Your task to perform on an android device: change timer sound Image 0: 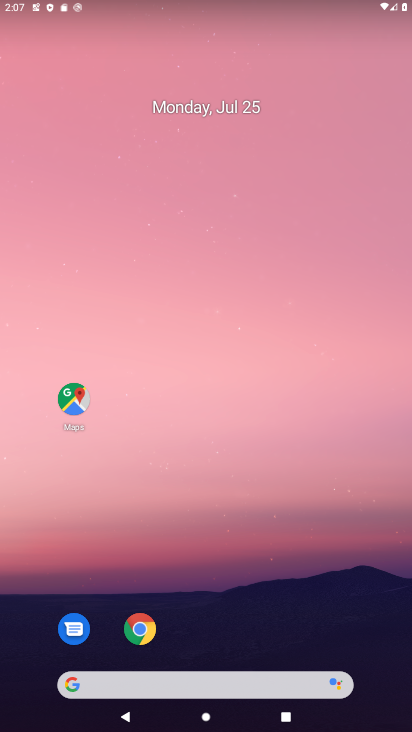
Step 0: drag from (217, 652) to (186, 61)
Your task to perform on an android device: change timer sound Image 1: 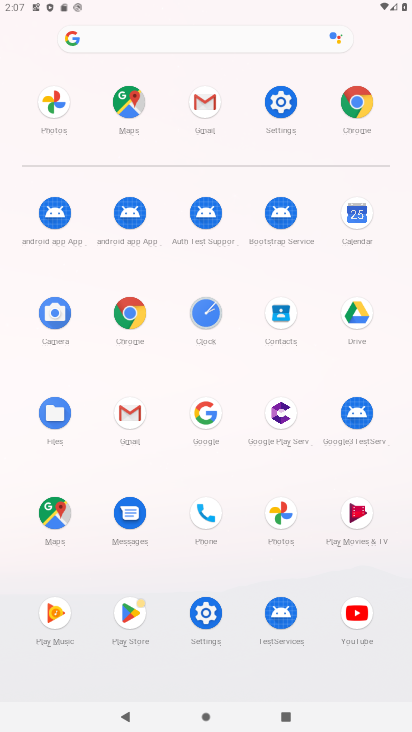
Step 1: click (274, 105)
Your task to perform on an android device: change timer sound Image 2: 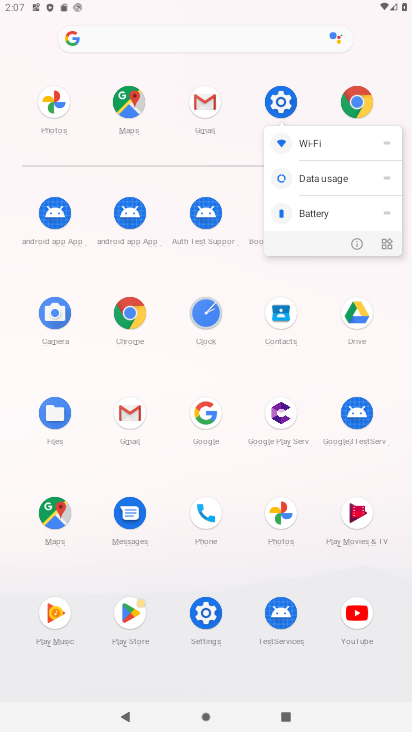
Step 2: click (356, 242)
Your task to perform on an android device: change timer sound Image 3: 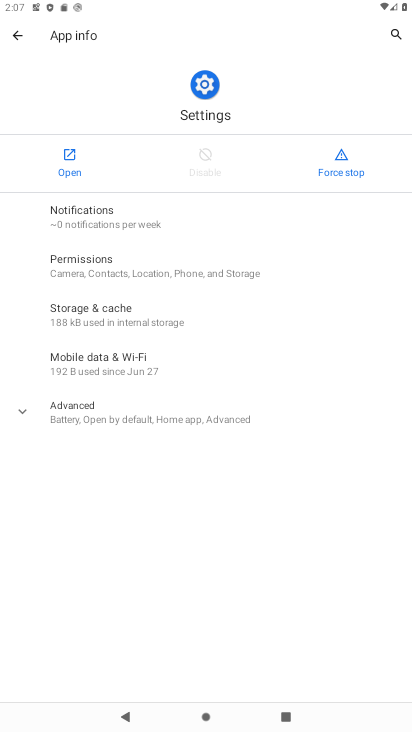
Step 3: click (74, 158)
Your task to perform on an android device: change timer sound Image 4: 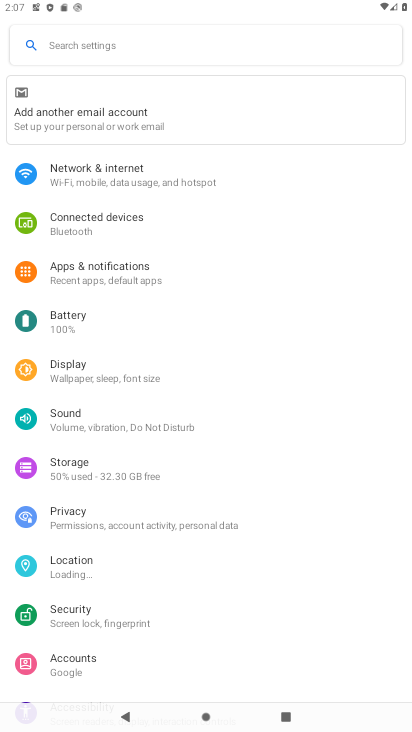
Step 4: drag from (178, 617) to (230, 210)
Your task to perform on an android device: change timer sound Image 5: 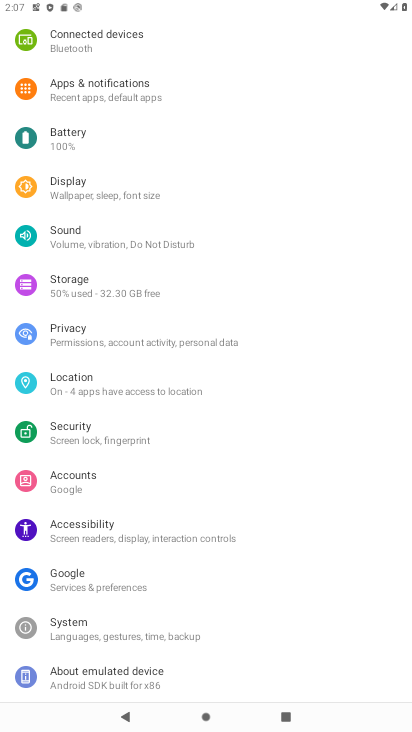
Step 5: press home button
Your task to perform on an android device: change timer sound Image 6: 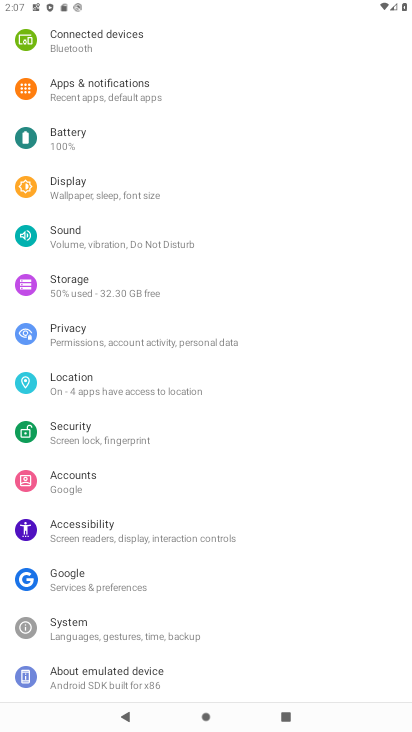
Step 6: press home button
Your task to perform on an android device: change timer sound Image 7: 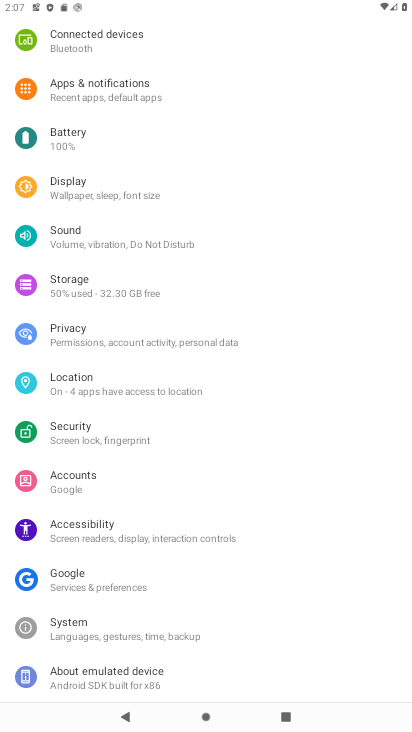
Step 7: click (174, 162)
Your task to perform on an android device: change timer sound Image 8: 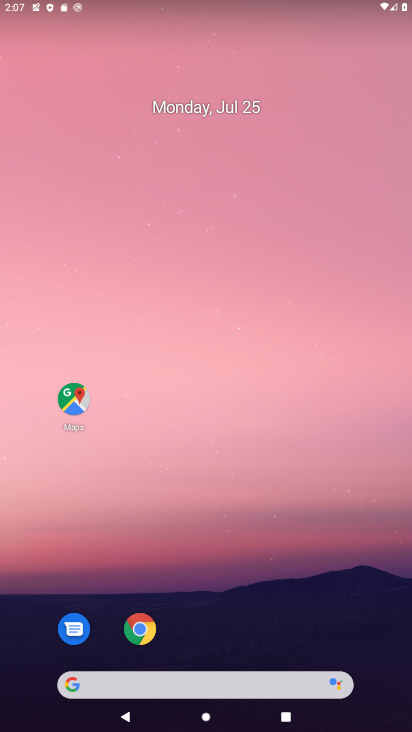
Step 8: drag from (208, 537) to (276, 66)
Your task to perform on an android device: change timer sound Image 9: 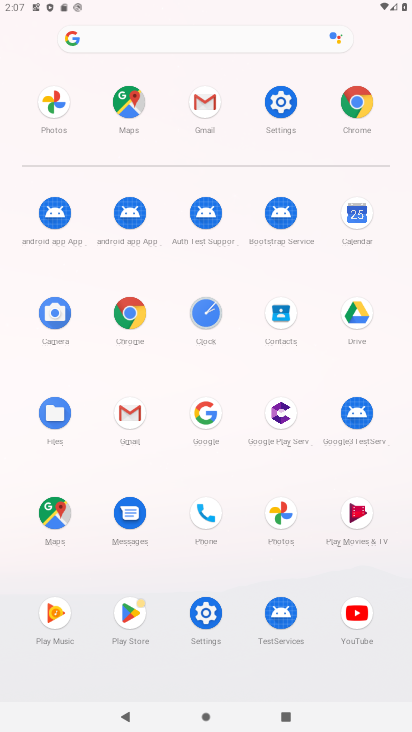
Step 9: click (199, 305)
Your task to perform on an android device: change timer sound Image 10: 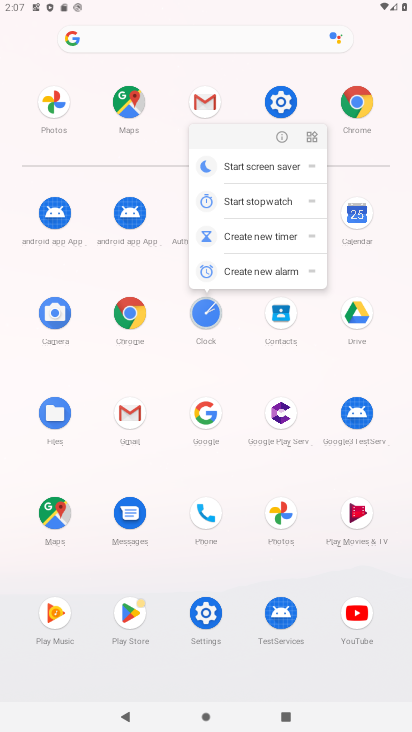
Step 10: click (284, 133)
Your task to perform on an android device: change timer sound Image 11: 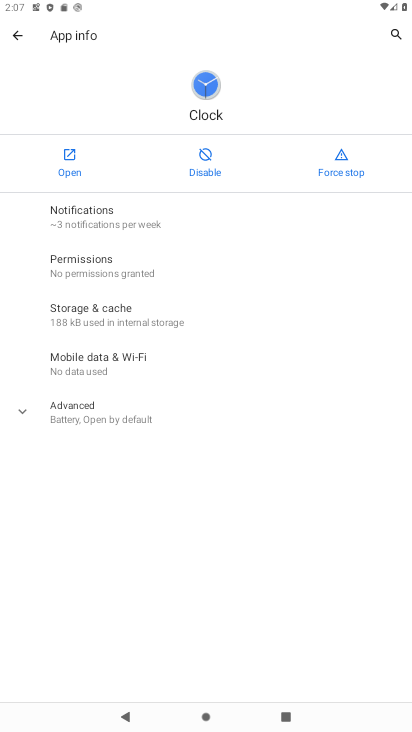
Step 11: click (64, 176)
Your task to perform on an android device: change timer sound Image 12: 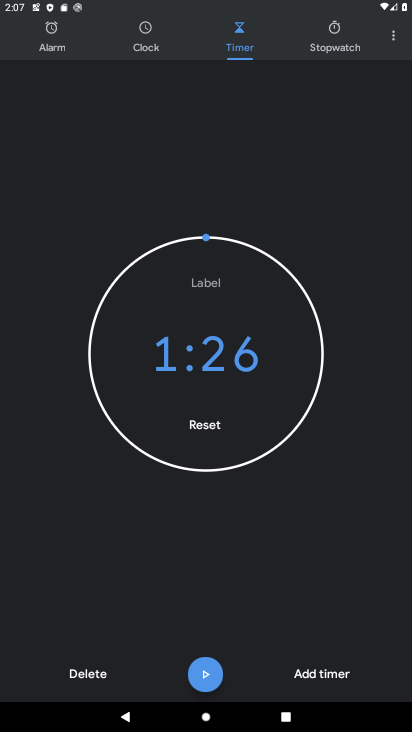
Step 12: drag from (388, 41) to (337, 66)
Your task to perform on an android device: change timer sound Image 13: 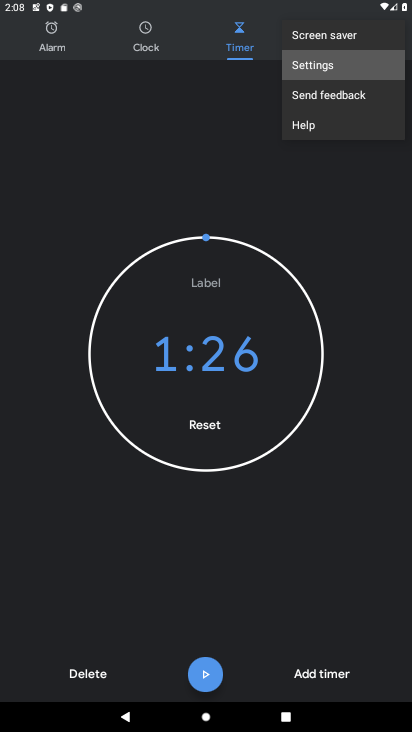
Step 13: click (337, 66)
Your task to perform on an android device: change timer sound Image 14: 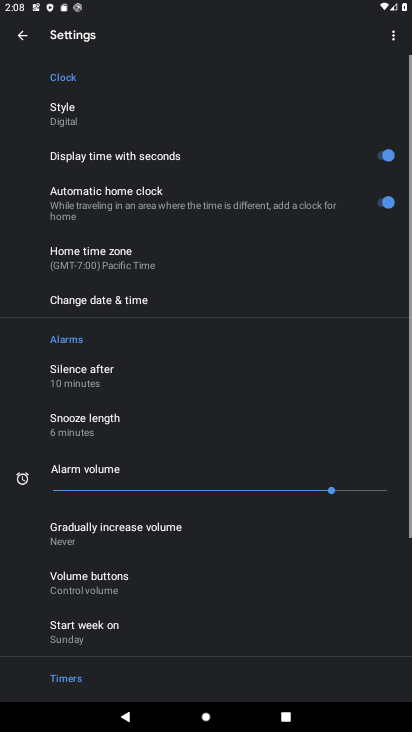
Step 14: drag from (158, 631) to (221, 134)
Your task to perform on an android device: change timer sound Image 15: 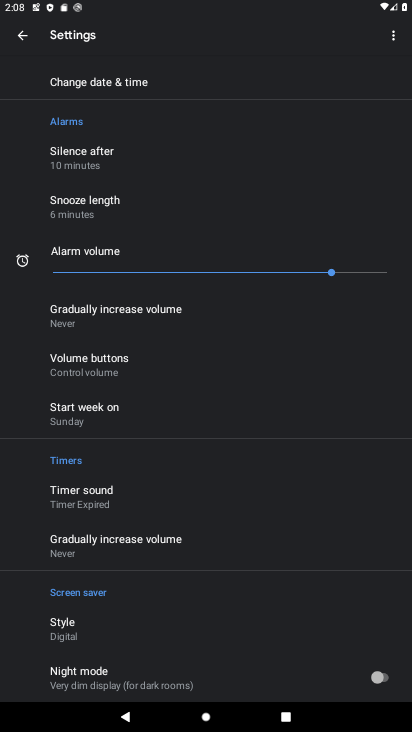
Step 15: drag from (133, 210) to (122, 579)
Your task to perform on an android device: change timer sound Image 16: 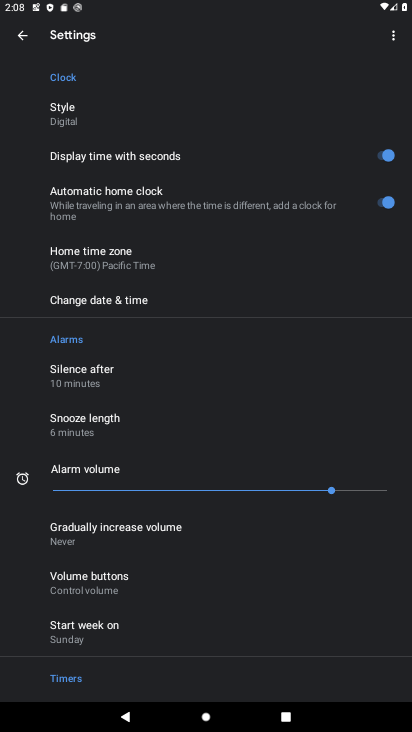
Step 16: drag from (188, 555) to (190, 352)
Your task to perform on an android device: change timer sound Image 17: 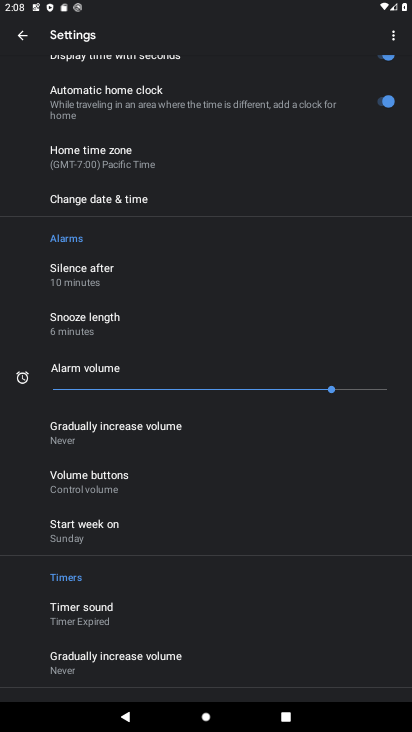
Step 17: click (130, 614)
Your task to perform on an android device: change timer sound Image 18: 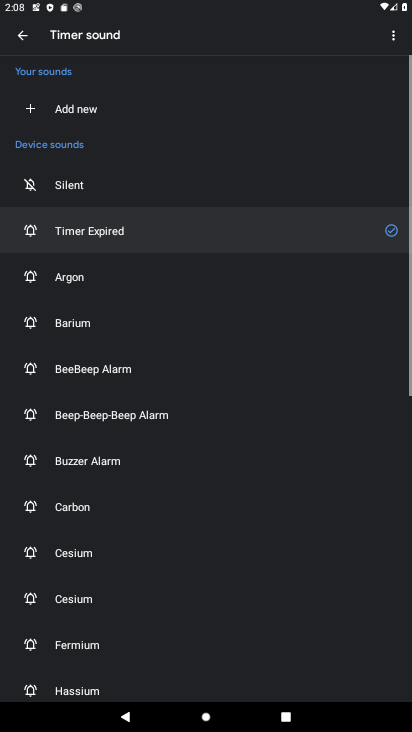
Step 18: drag from (156, 583) to (216, 190)
Your task to perform on an android device: change timer sound Image 19: 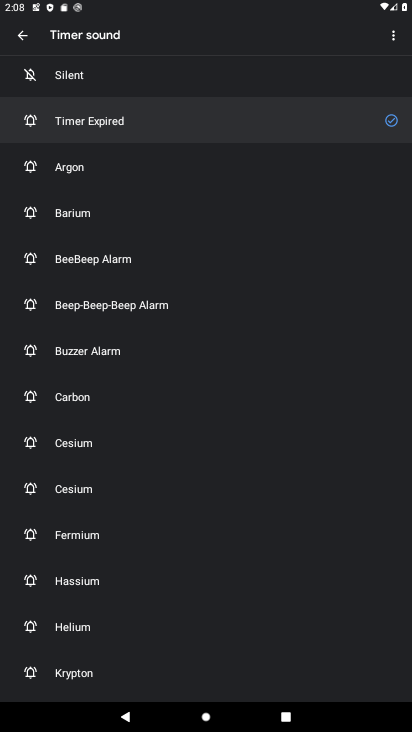
Step 19: click (162, 296)
Your task to perform on an android device: change timer sound Image 20: 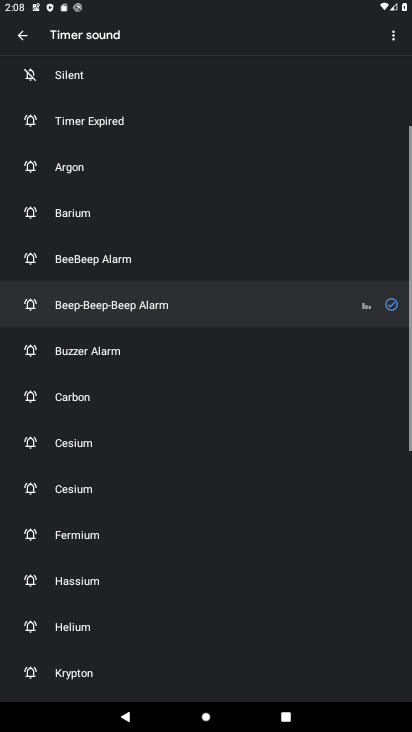
Step 20: task complete